Your task to perform on an android device: find photos in the google photos app Image 0: 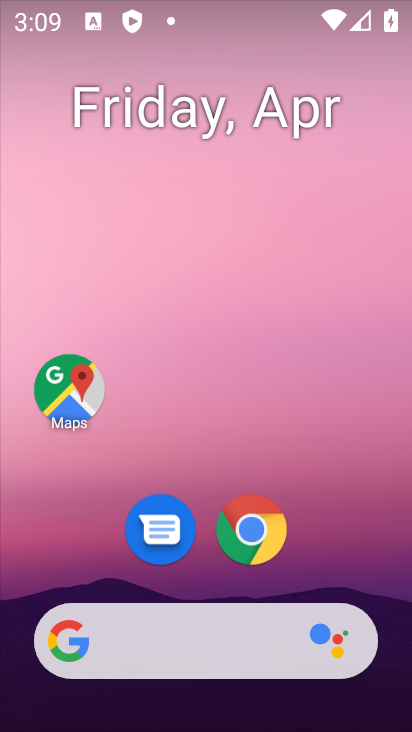
Step 0: drag from (307, 532) to (287, 179)
Your task to perform on an android device: find photos in the google photos app Image 1: 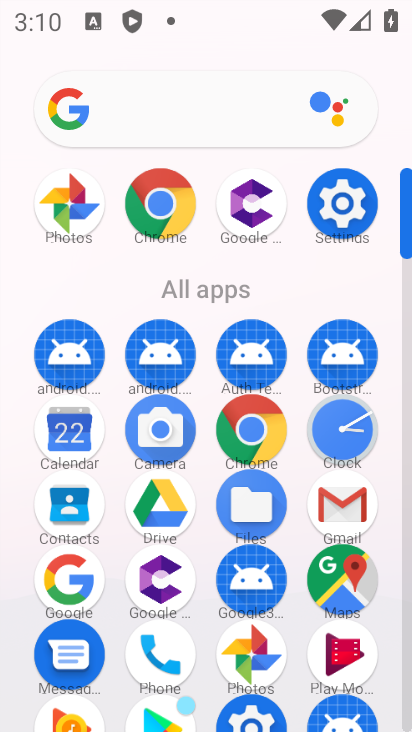
Step 1: drag from (215, 469) to (264, 185)
Your task to perform on an android device: find photos in the google photos app Image 2: 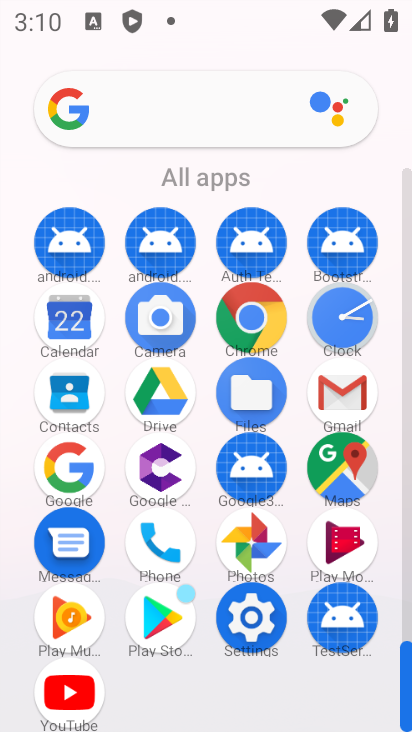
Step 2: click (266, 542)
Your task to perform on an android device: find photos in the google photos app Image 3: 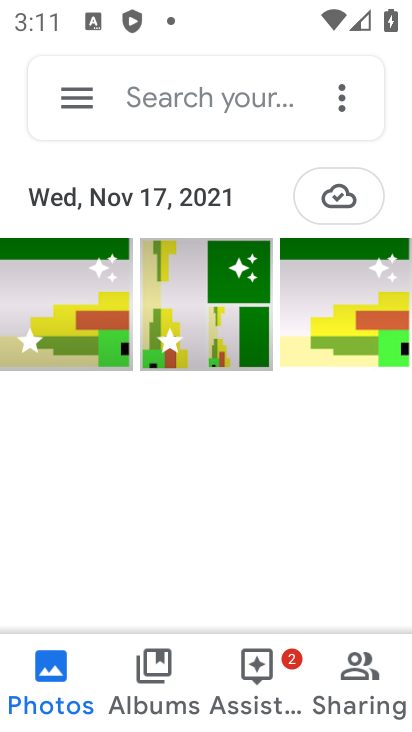
Step 3: task complete